Your task to perform on an android device: turn on airplane mode Image 0: 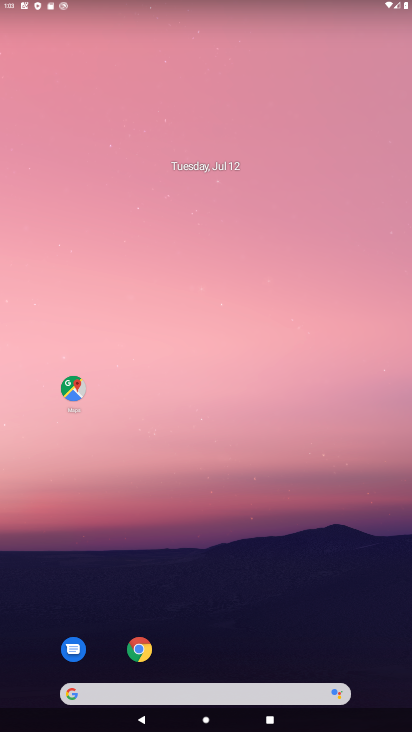
Step 0: drag from (265, 664) to (220, 216)
Your task to perform on an android device: turn on airplane mode Image 1: 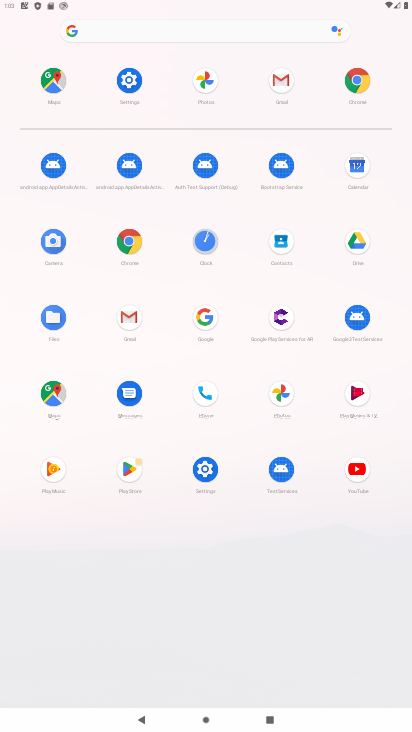
Step 1: click (133, 95)
Your task to perform on an android device: turn on airplane mode Image 2: 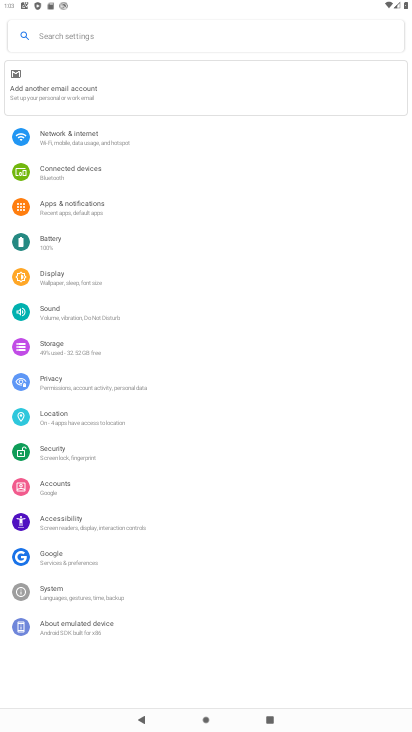
Step 2: click (123, 129)
Your task to perform on an android device: turn on airplane mode Image 3: 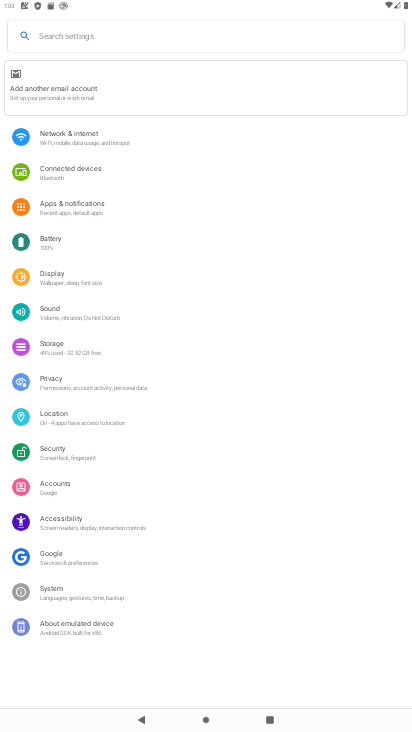
Step 3: click (123, 129)
Your task to perform on an android device: turn on airplane mode Image 4: 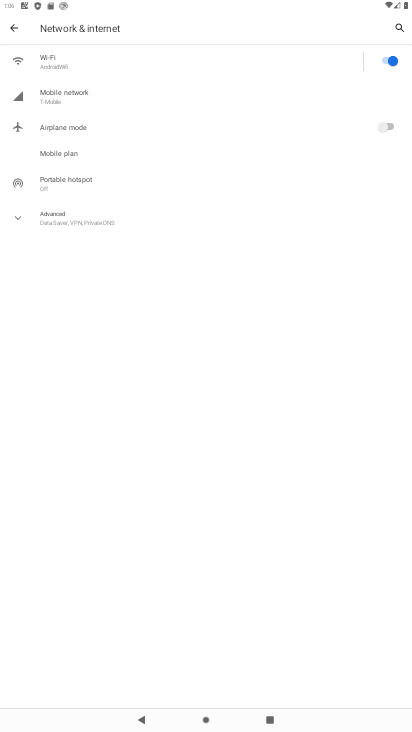
Step 4: click (373, 122)
Your task to perform on an android device: turn on airplane mode Image 5: 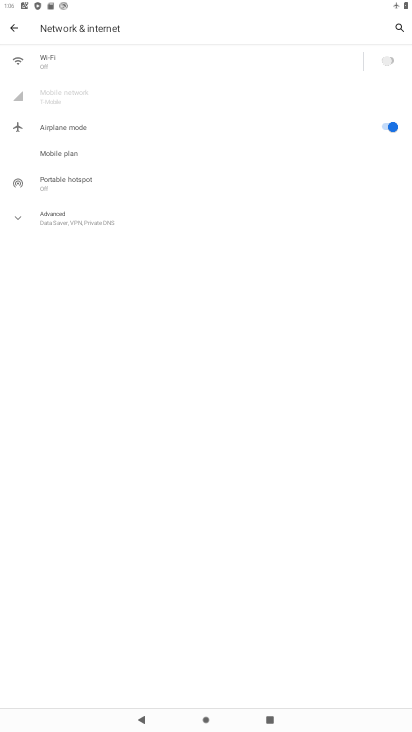
Step 5: task complete